Your task to perform on an android device: Show me productivity apps on the Play Store Image 0: 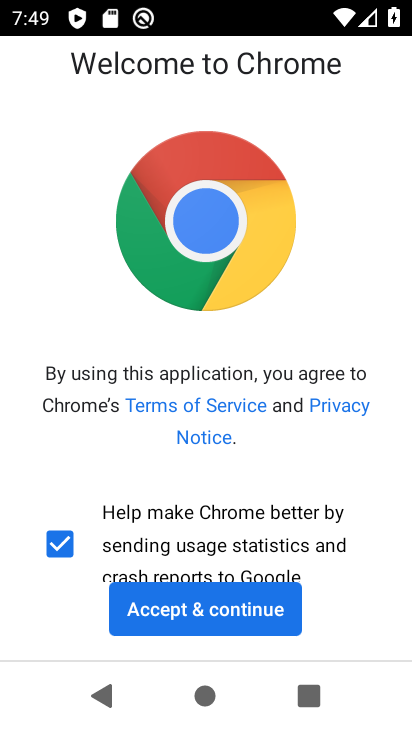
Step 0: press home button
Your task to perform on an android device: Show me productivity apps on the Play Store Image 1: 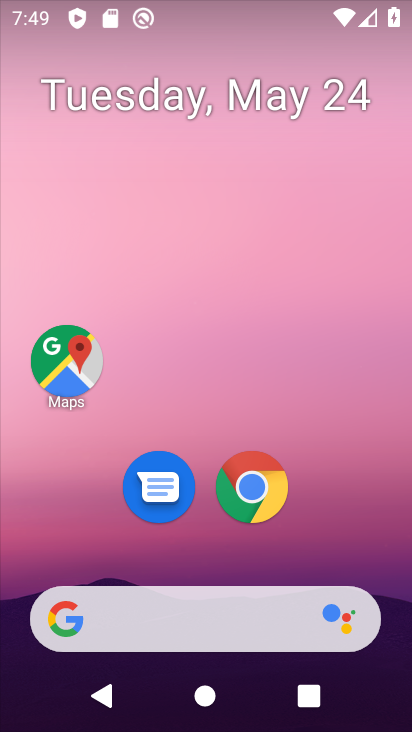
Step 1: drag from (28, 596) to (368, 140)
Your task to perform on an android device: Show me productivity apps on the Play Store Image 2: 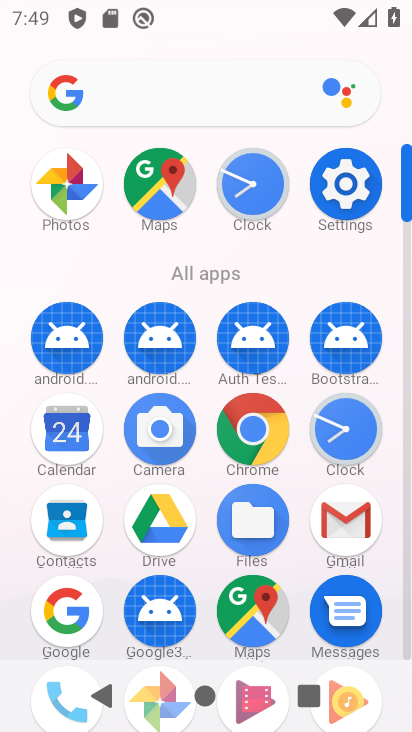
Step 2: drag from (30, 540) to (335, 200)
Your task to perform on an android device: Show me productivity apps on the Play Store Image 3: 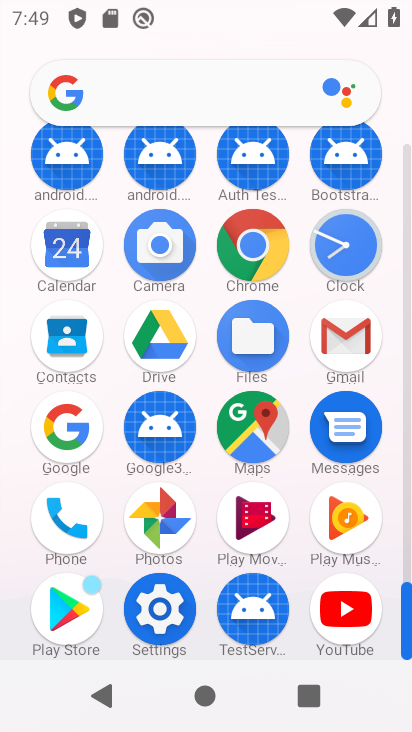
Step 3: click (51, 607)
Your task to perform on an android device: Show me productivity apps on the Play Store Image 4: 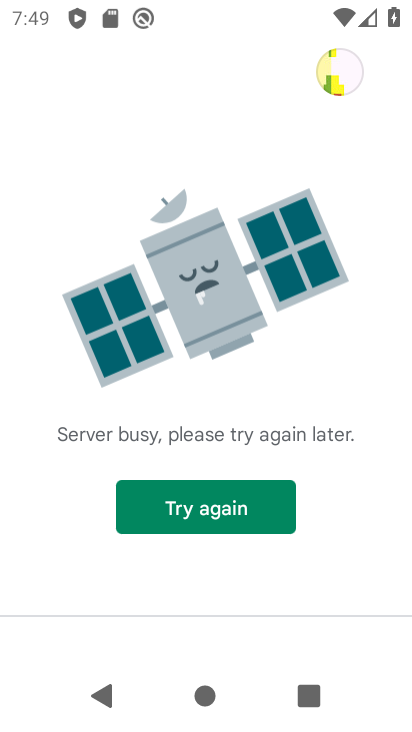
Step 4: task complete